Your task to perform on an android device: toggle javascript in the chrome app Image 0: 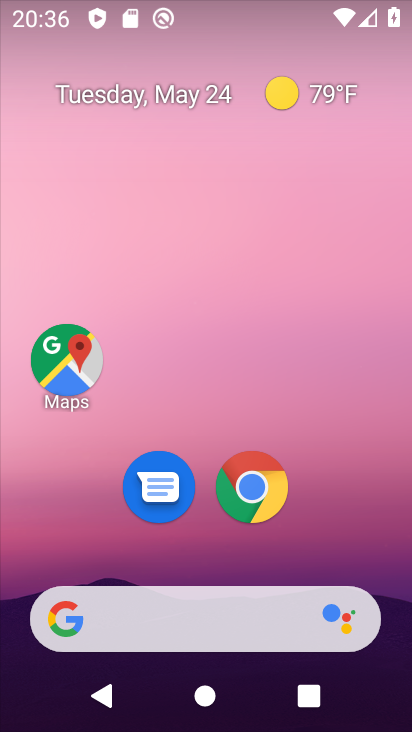
Step 0: click (261, 514)
Your task to perform on an android device: toggle javascript in the chrome app Image 1: 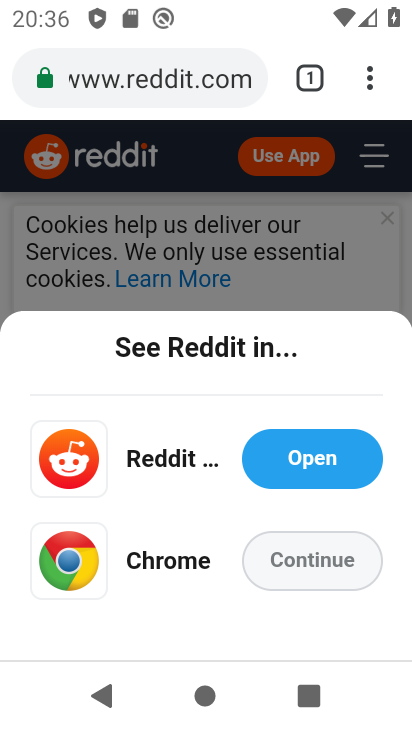
Step 1: drag from (369, 77) to (125, 561)
Your task to perform on an android device: toggle javascript in the chrome app Image 2: 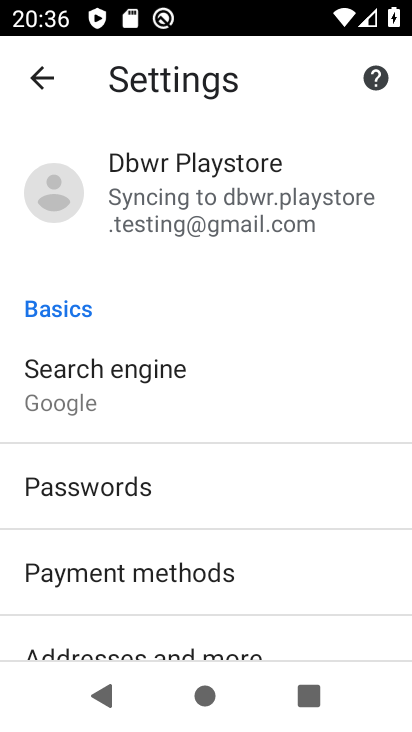
Step 2: drag from (299, 611) to (307, 372)
Your task to perform on an android device: toggle javascript in the chrome app Image 3: 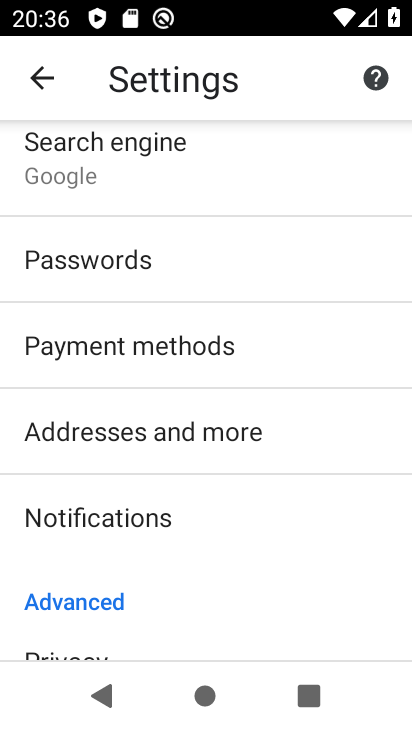
Step 3: drag from (300, 617) to (299, 275)
Your task to perform on an android device: toggle javascript in the chrome app Image 4: 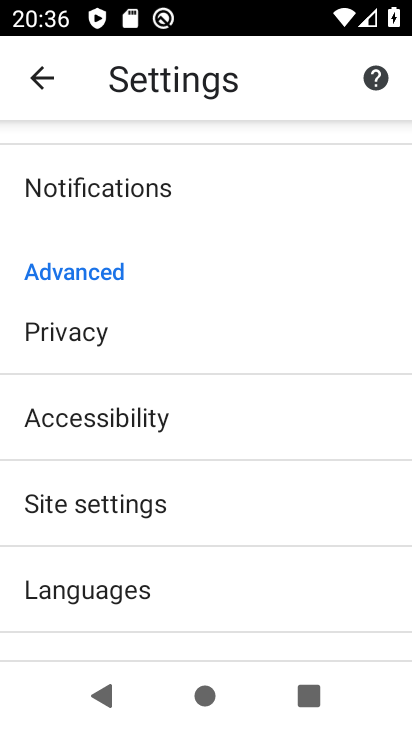
Step 4: click (113, 511)
Your task to perform on an android device: toggle javascript in the chrome app Image 5: 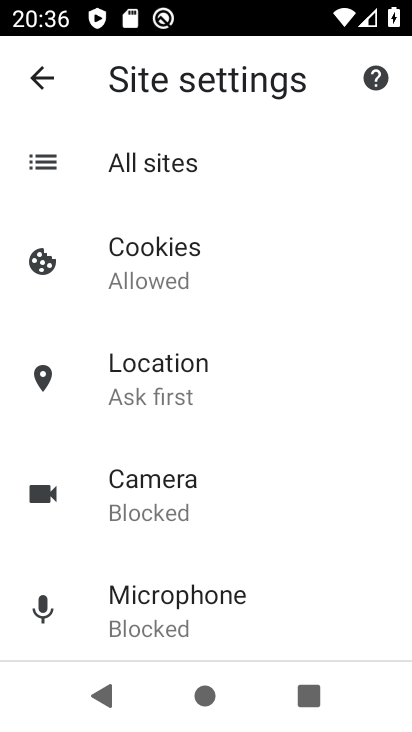
Step 5: drag from (340, 601) to (342, 288)
Your task to perform on an android device: toggle javascript in the chrome app Image 6: 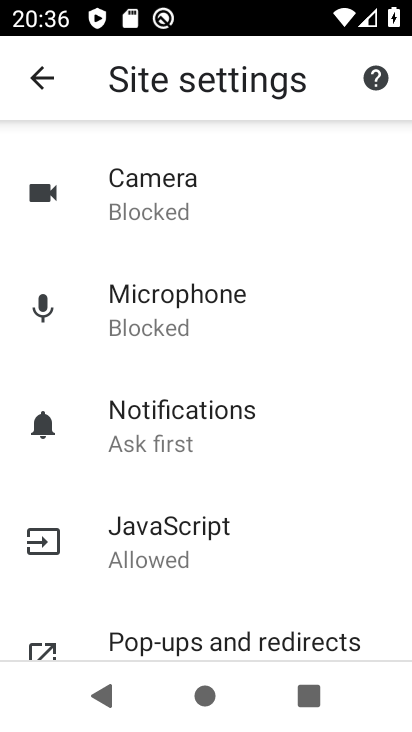
Step 6: click (144, 533)
Your task to perform on an android device: toggle javascript in the chrome app Image 7: 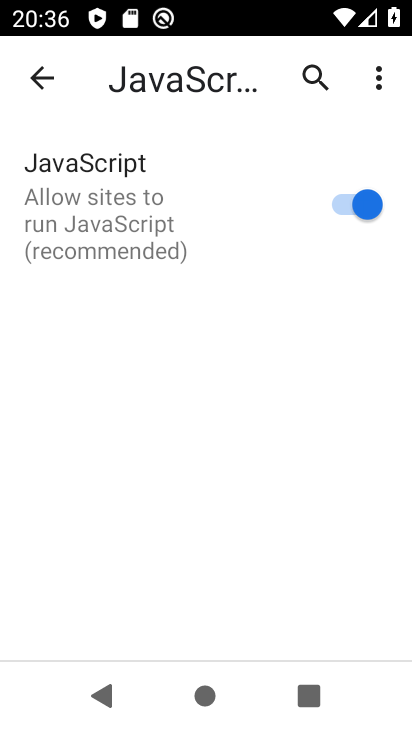
Step 7: click (361, 201)
Your task to perform on an android device: toggle javascript in the chrome app Image 8: 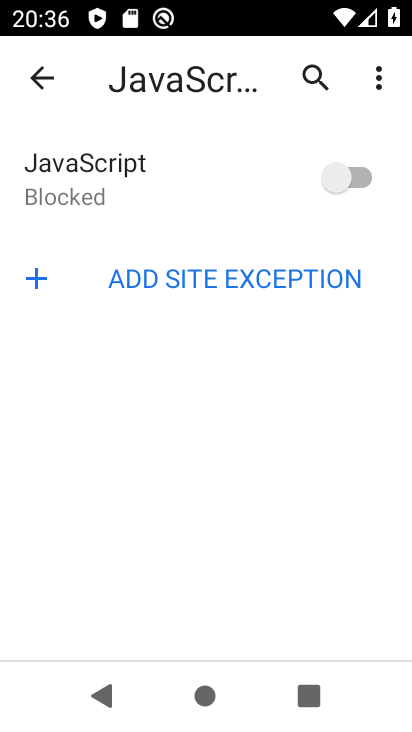
Step 8: task complete